Your task to perform on an android device: Search for Mexican restaurants on Maps Image 0: 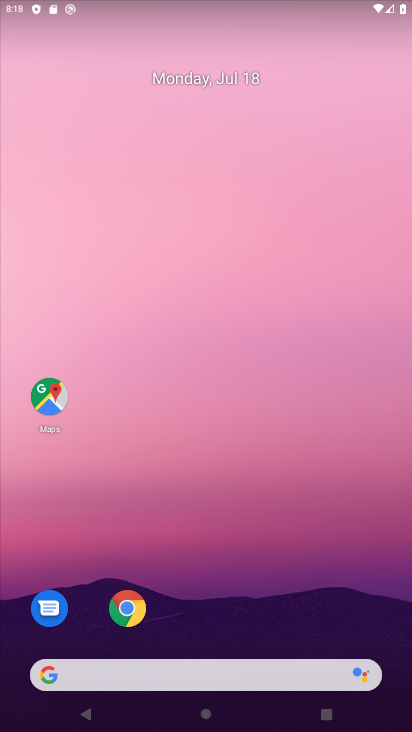
Step 0: drag from (264, 721) to (238, 175)
Your task to perform on an android device: Search for Mexican restaurants on Maps Image 1: 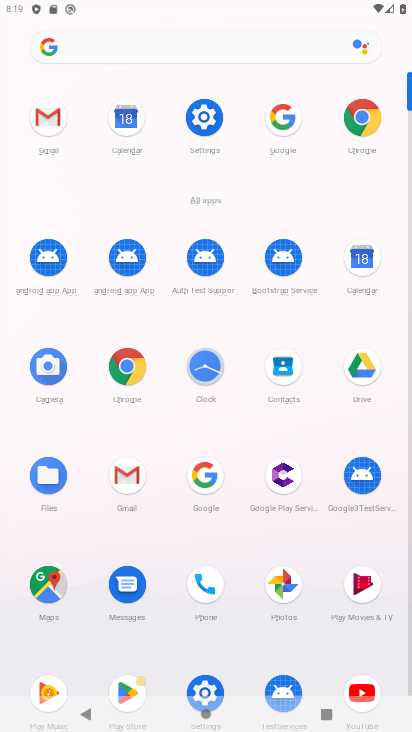
Step 1: click (50, 585)
Your task to perform on an android device: Search for Mexican restaurants on Maps Image 2: 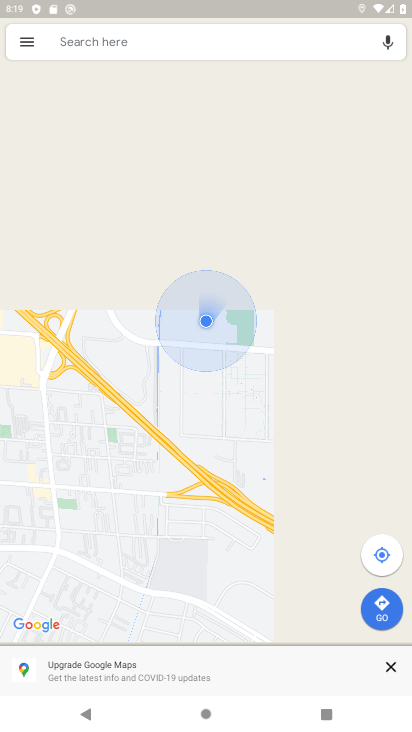
Step 2: click (177, 42)
Your task to perform on an android device: Search for Mexican restaurants on Maps Image 3: 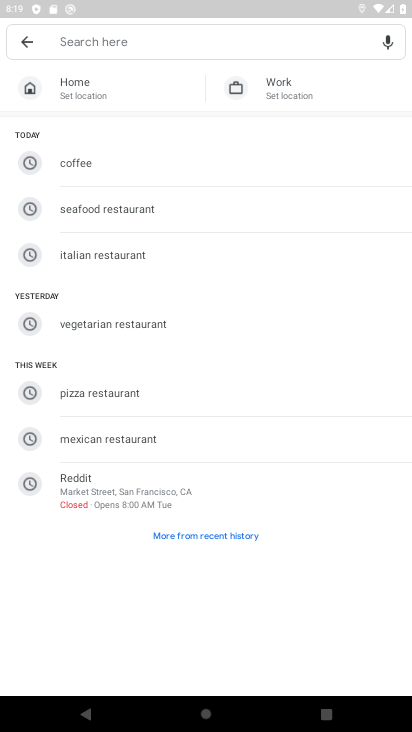
Step 3: type "Mexican restaurants"
Your task to perform on an android device: Search for Mexican restaurants on Maps Image 4: 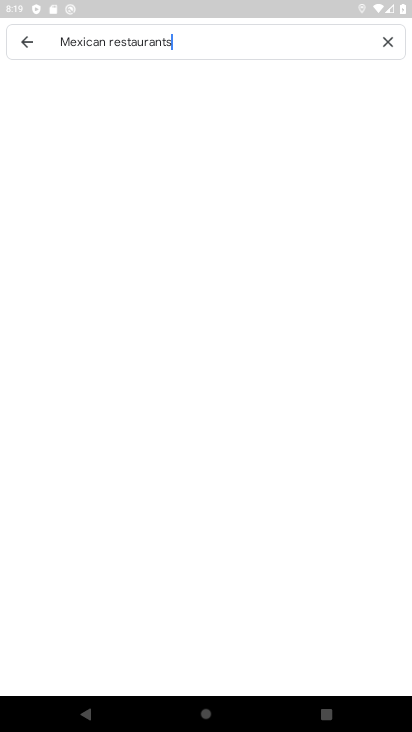
Step 4: type ""
Your task to perform on an android device: Search for Mexican restaurants on Maps Image 5: 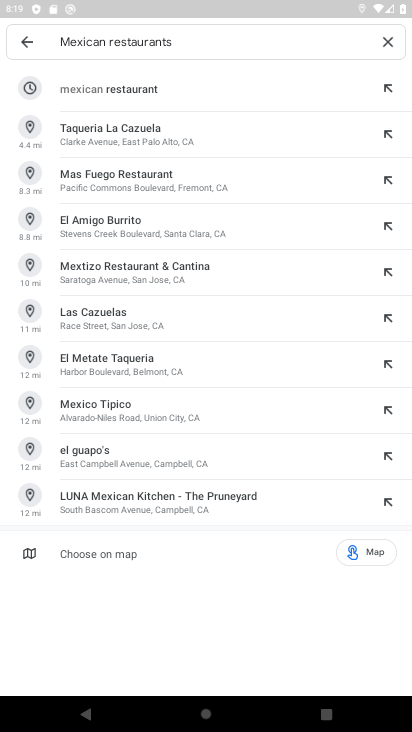
Step 5: click (102, 86)
Your task to perform on an android device: Search for Mexican restaurants on Maps Image 6: 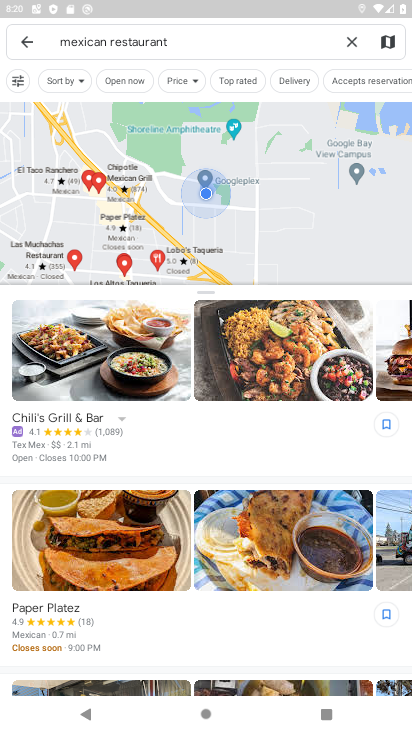
Step 6: task complete